Your task to perform on an android device: turn off notifications in google photos Image 0: 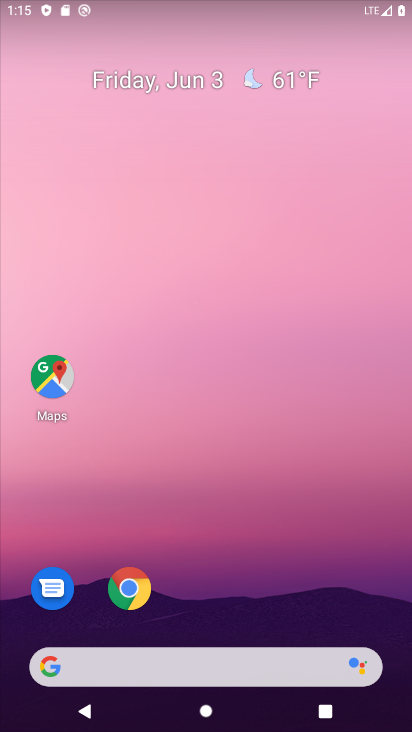
Step 0: drag from (283, 614) to (342, 253)
Your task to perform on an android device: turn off notifications in google photos Image 1: 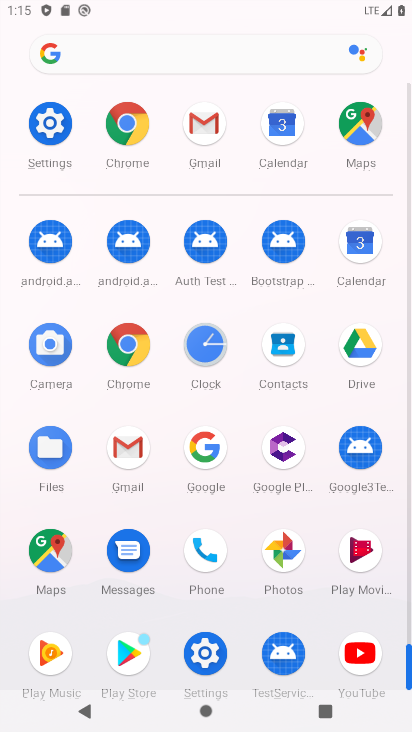
Step 1: click (294, 551)
Your task to perform on an android device: turn off notifications in google photos Image 2: 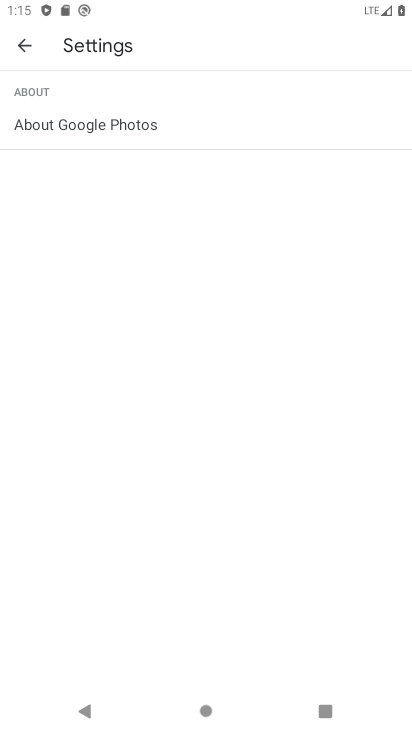
Step 2: press back button
Your task to perform on an android device: turn off notifications in google photos Image 3: 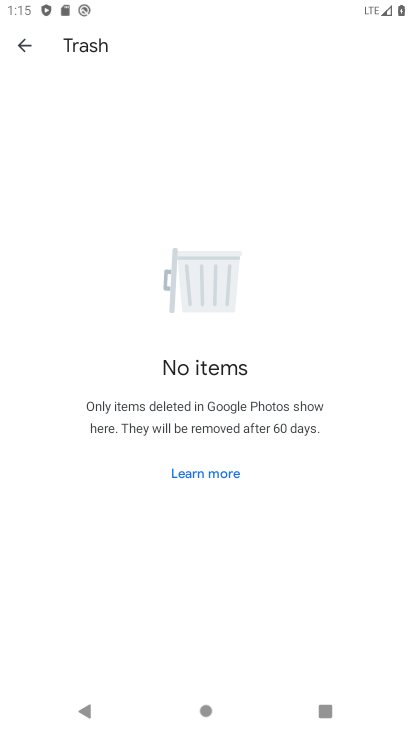
Step 3: press back button
Your task to perform on an android device: turn off notifications in google photos Image 4: 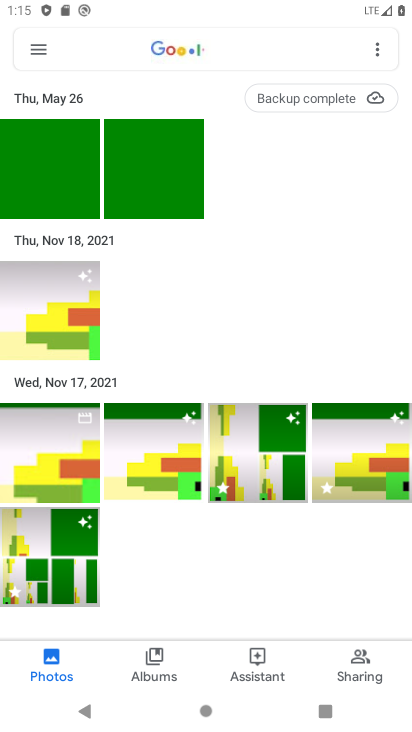
Step 4: click (37, 53)
Your task to perform on an android device: turn off notifications in google photos Image 5: 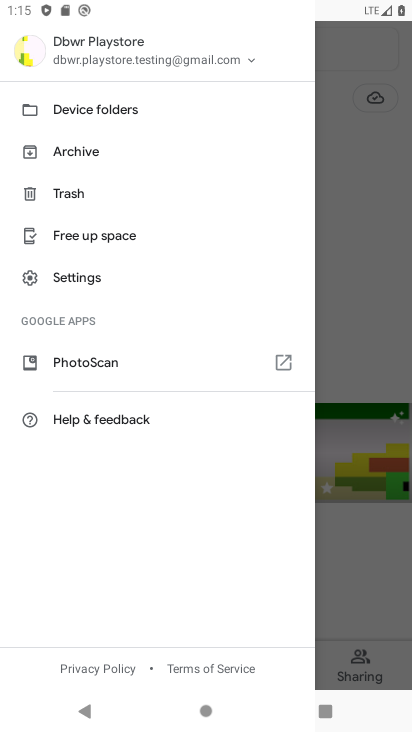
Step 5: click (107, 271)
Your task to perform on an android device: turn off notifications in google photos Image 6: 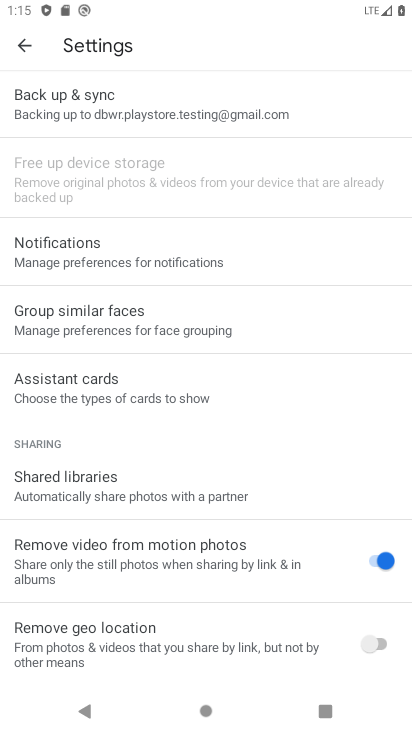
Step 6: drag from (161, 471) to (212, 575)
Your task to perform on an android device: turn off notifications in google photos Image 7: 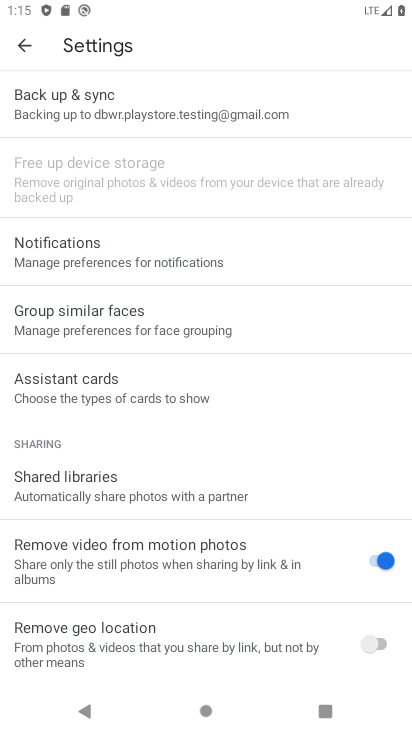
Step 7: click (170, 256)
Your task to perform on an android device: turn off notifications in google photos Image 8: 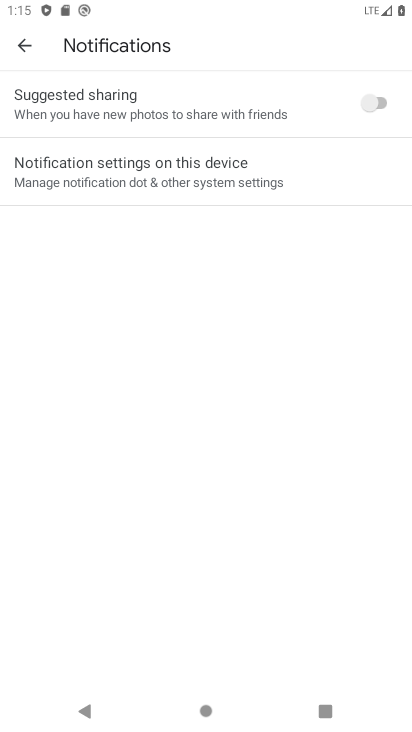
Step 8: click (228, 189)
Your task to perform on an android device: turn off notifications in google photos Image 9: 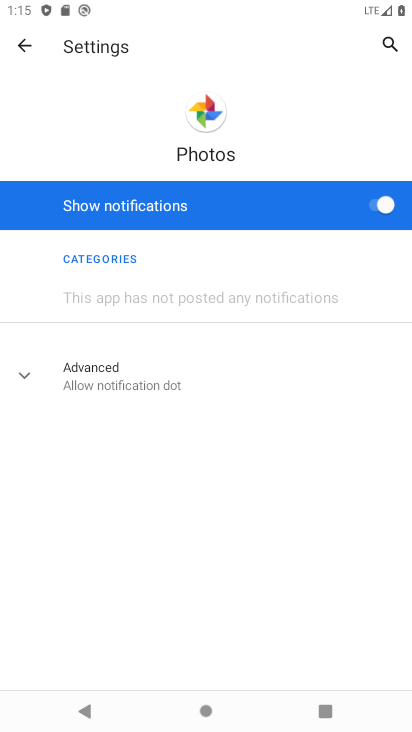
Step 9: click (380, 210)
Your task to perform on an android device: turn off notifications in google photos Image 10: 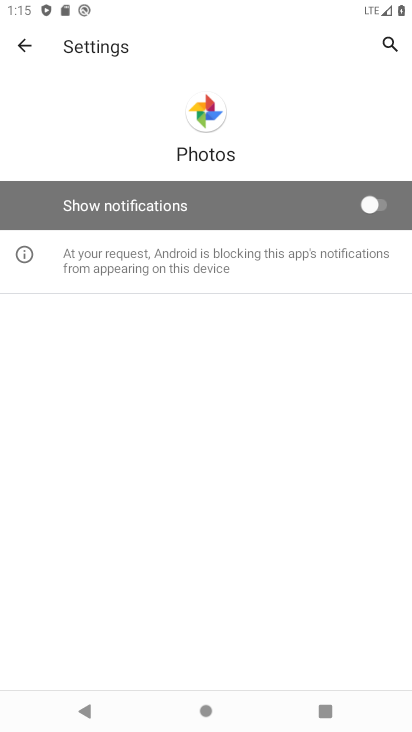
Step 10: task complete